Your task to perform on an android device: Go to Amazon Image 0: 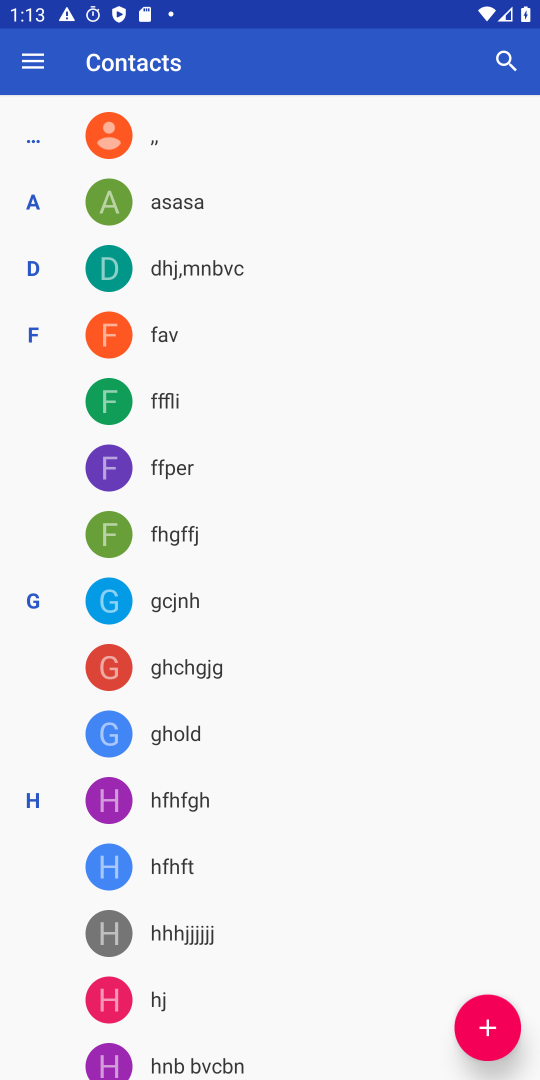
Step 0: press home button
Your task to perform on an android device: Go to Amazon Image 1: 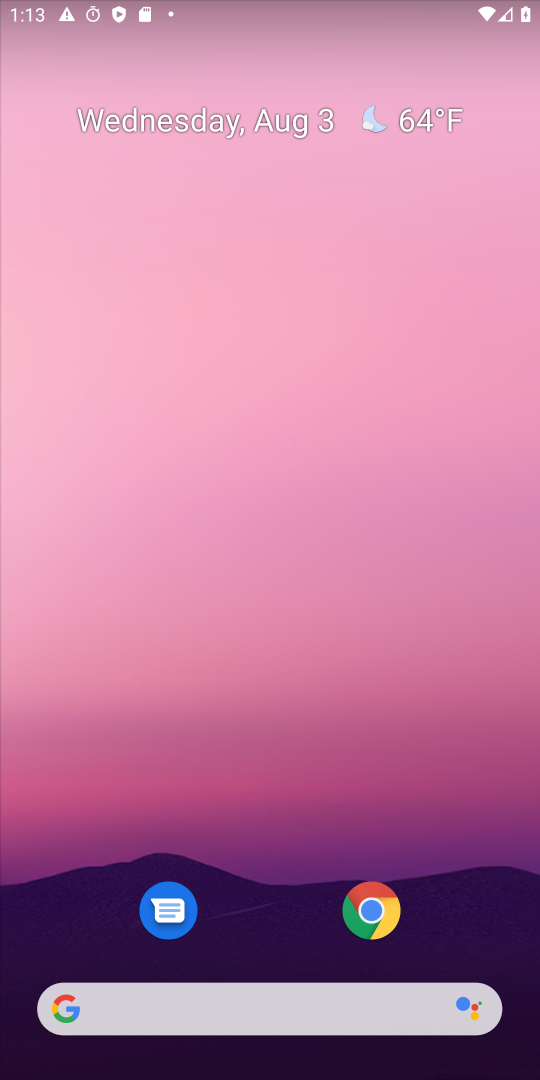
Step 1: drag from (309, 929) to (324, 0)
Your task to perform on an android device: Go to Amazon Image 2: 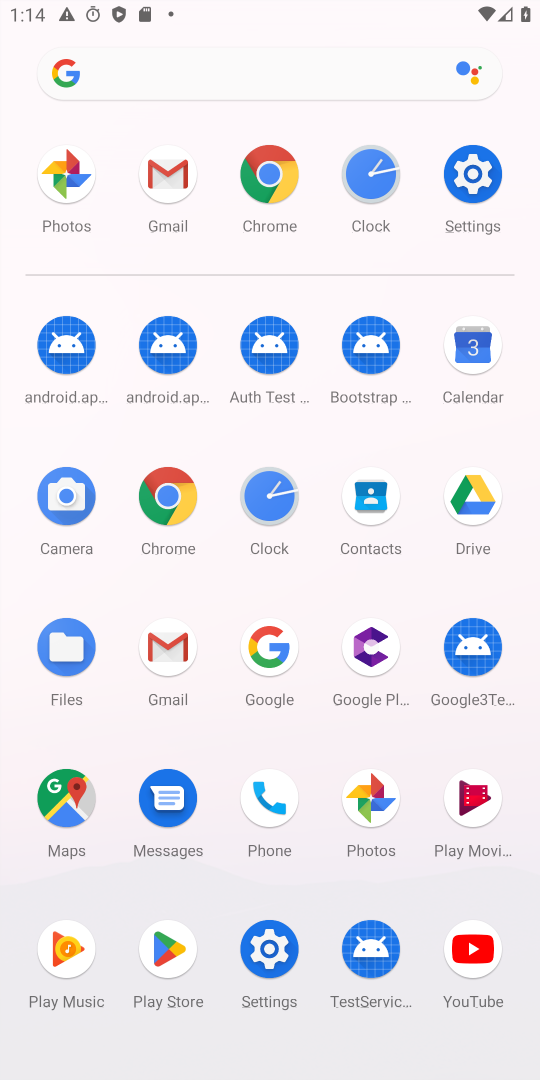
Step 2: click (170, 513)
Your task to perform on an android device: Go to Amazon Image 3: 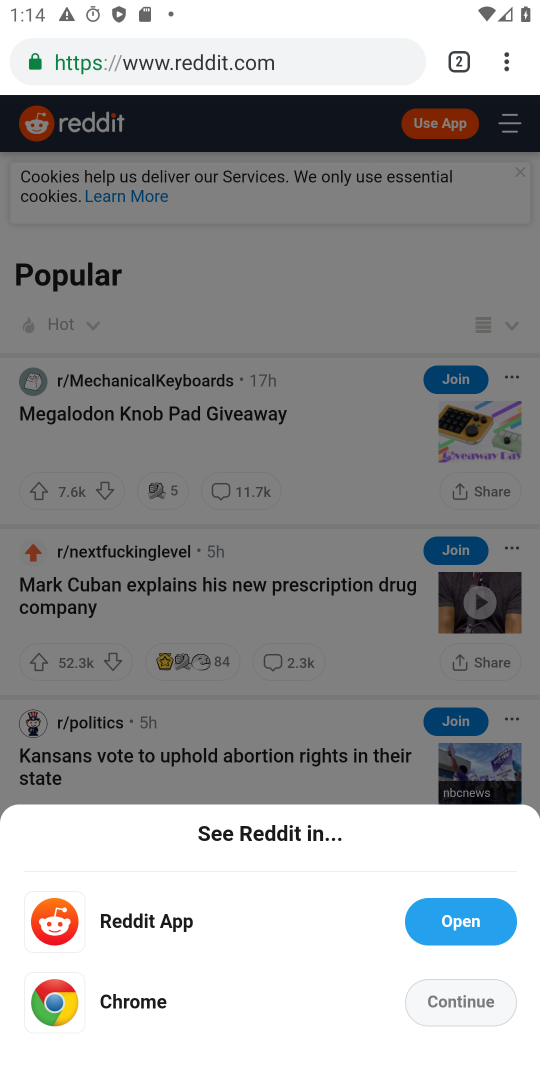
Step 3: click (194, 58)
Your task to perform on an android device: Go to Amazon Image 4: 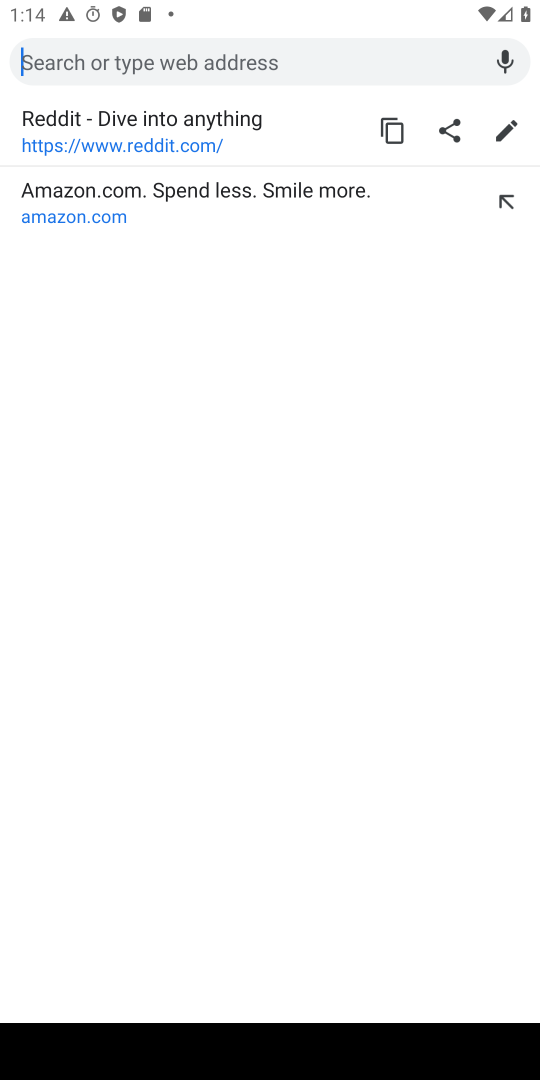
Step 4: type "amazon"
Your task to perform on an android device: Go to Amazon Image 5: 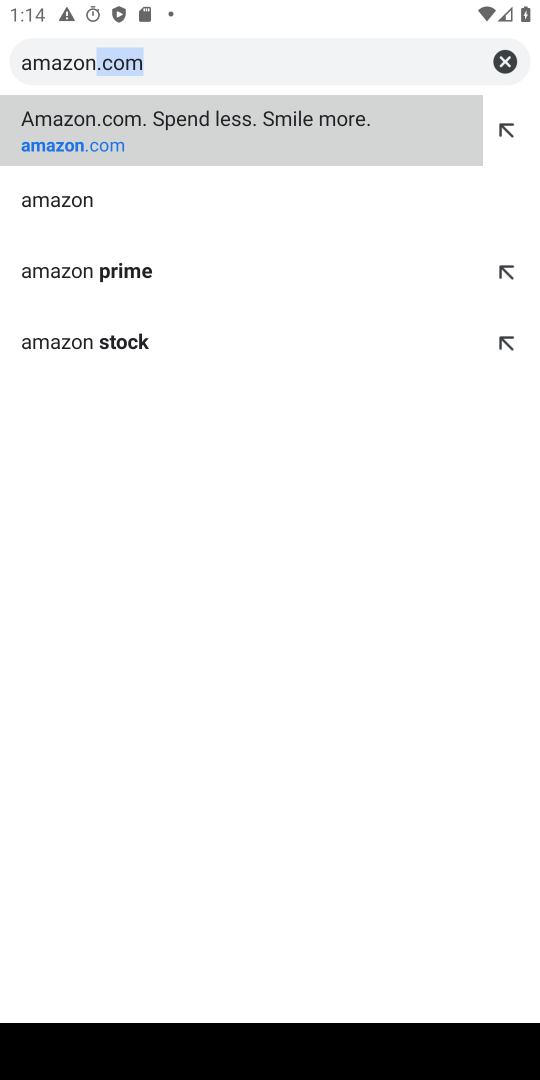
Step 5: click (294, 120)
Your task to perform on an android device: Go to Amazon Image 6: 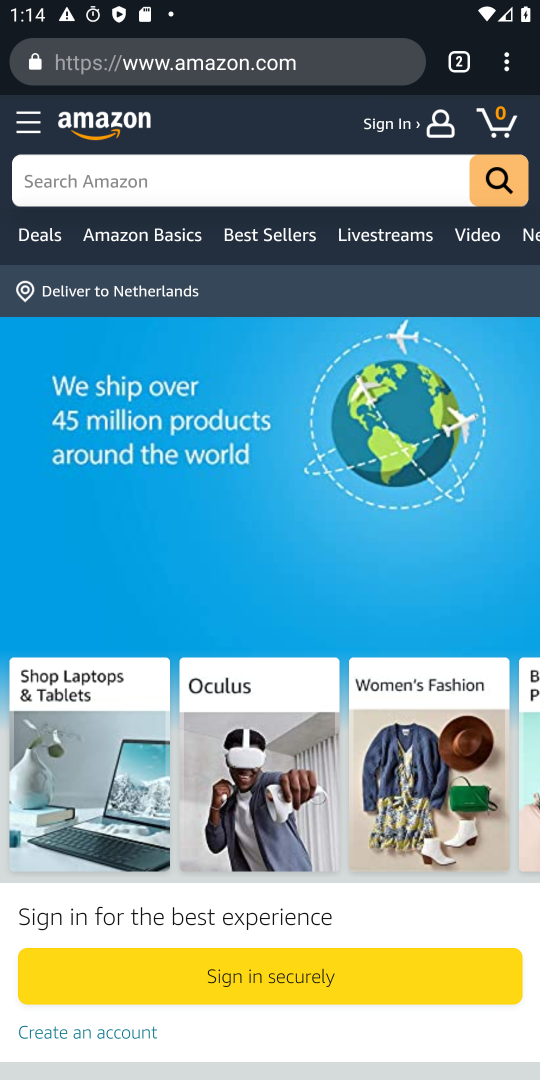
Step 6: task complete